Your task to perform on an android device: uninstall "AliExpress" Image 0: 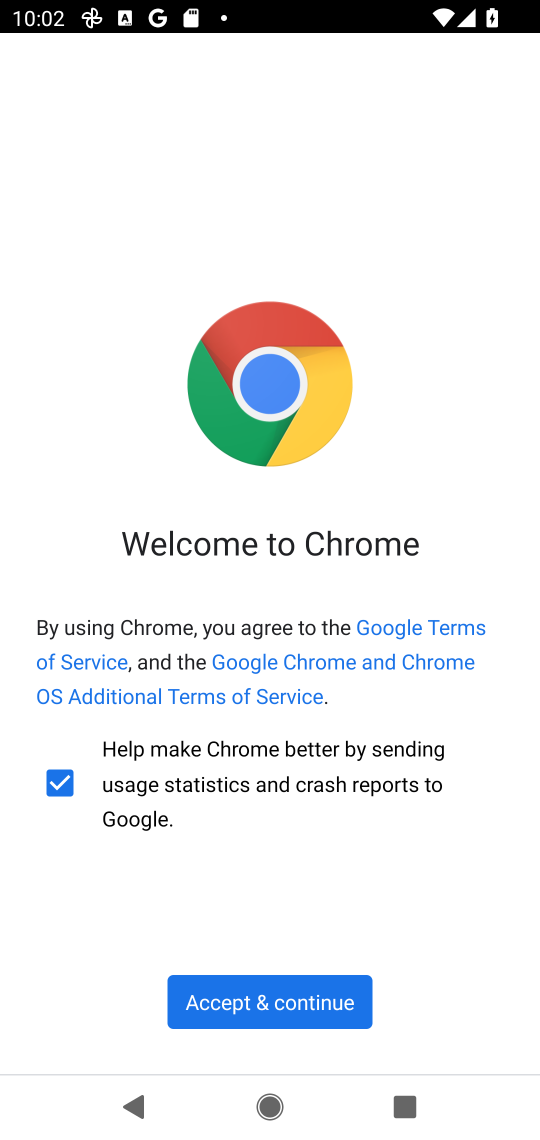
Step 0: press home button
Your task to perform on an android device: uninstall "AliExpress" Image 1: 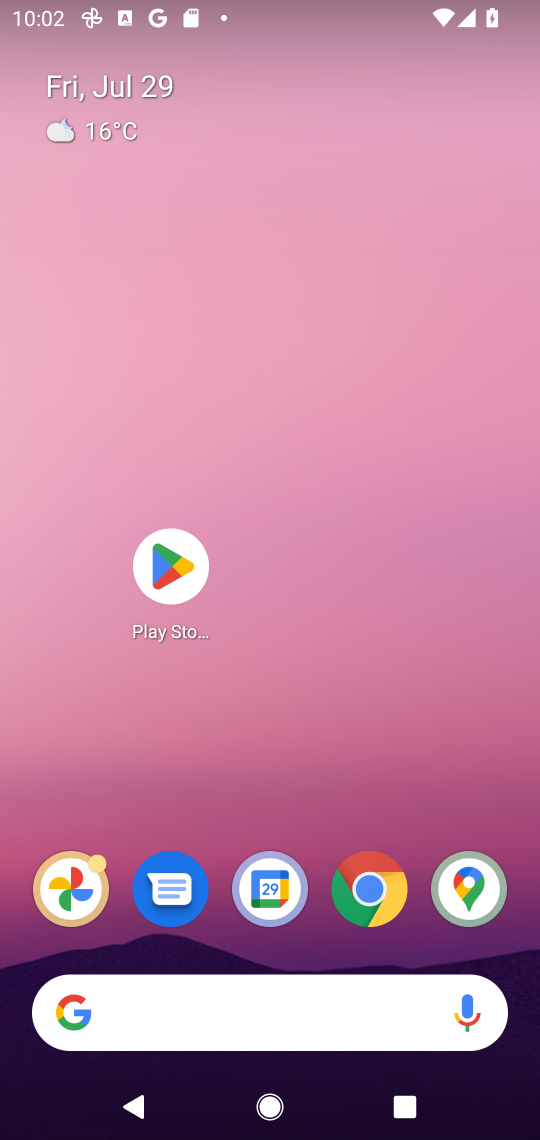
Step 1: click (155, 567)
Your task to perform on an android device: uninstall "AliExpress" Image 2: 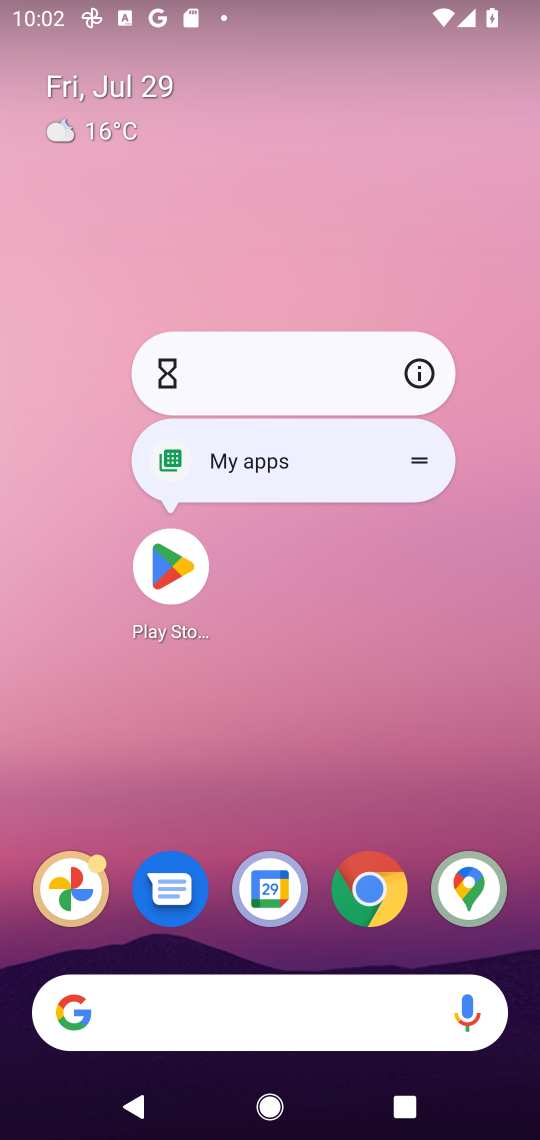
Step 2: click (174, 567)
Your task to perform on an android device: uninstall "AliExpress" Image 3: 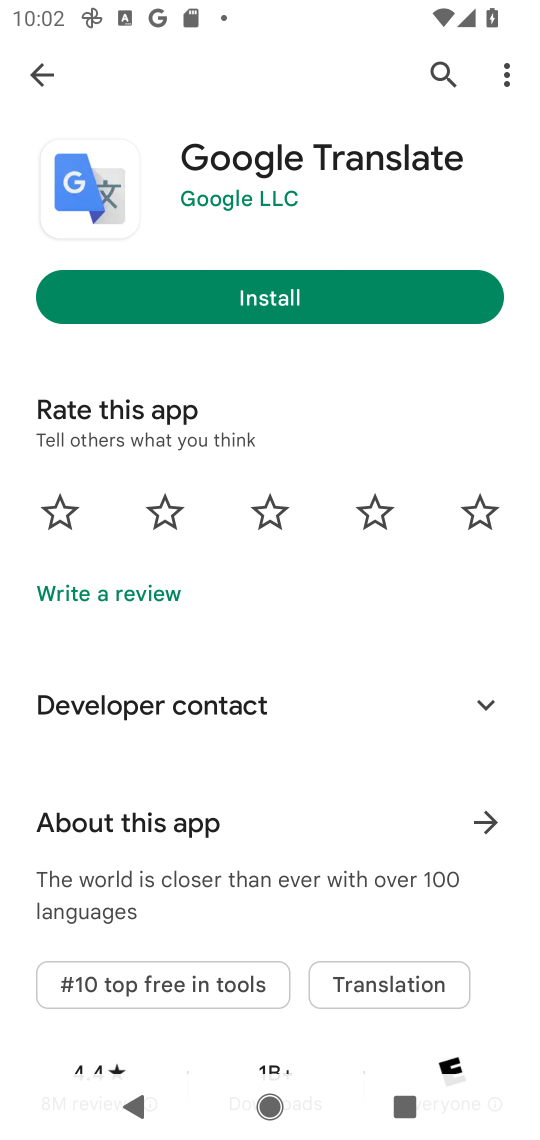
Step 3: click (431, 57)
Your task to perform on an android device: uninstall "AliExpress" Image 4: 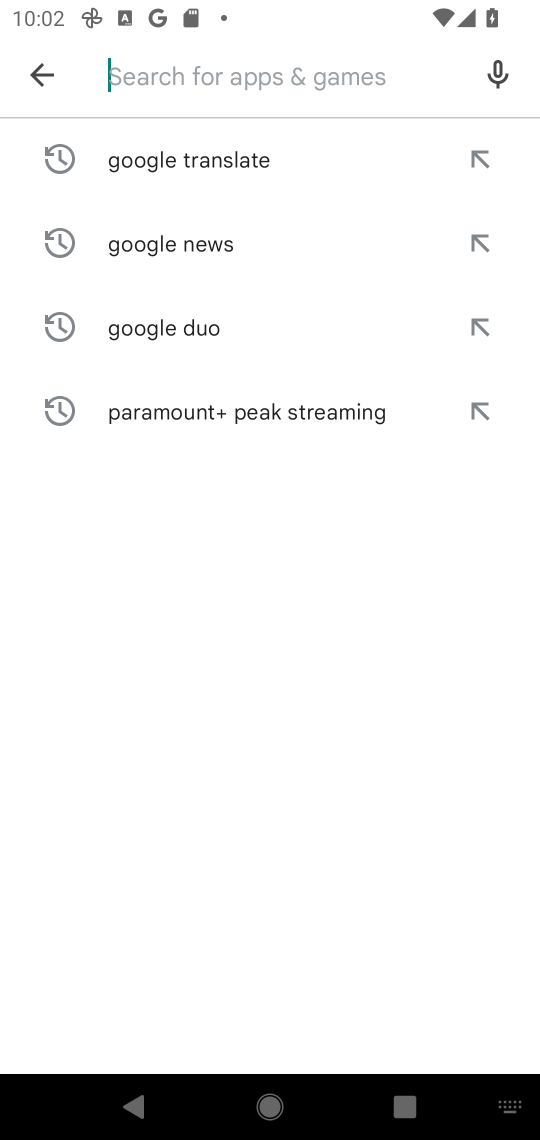
Step 4: type "AliExpress"
Your task to perform on an android device: uninstall "AliExpress" Image 5: 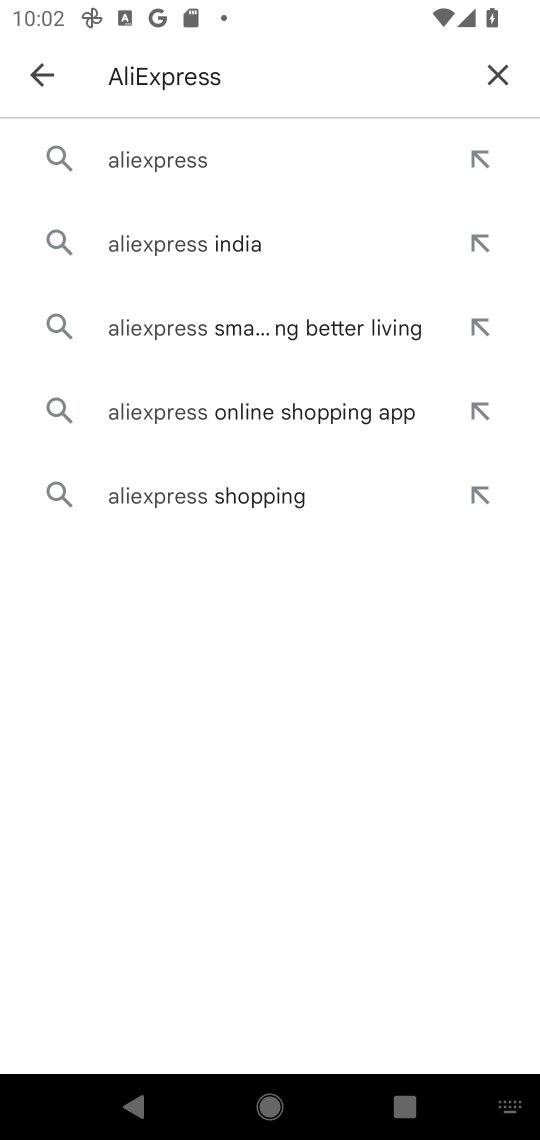
Step 5: click (198, 157)
Your task to perform on an android device: uninstall "AliExpress" Image 6: 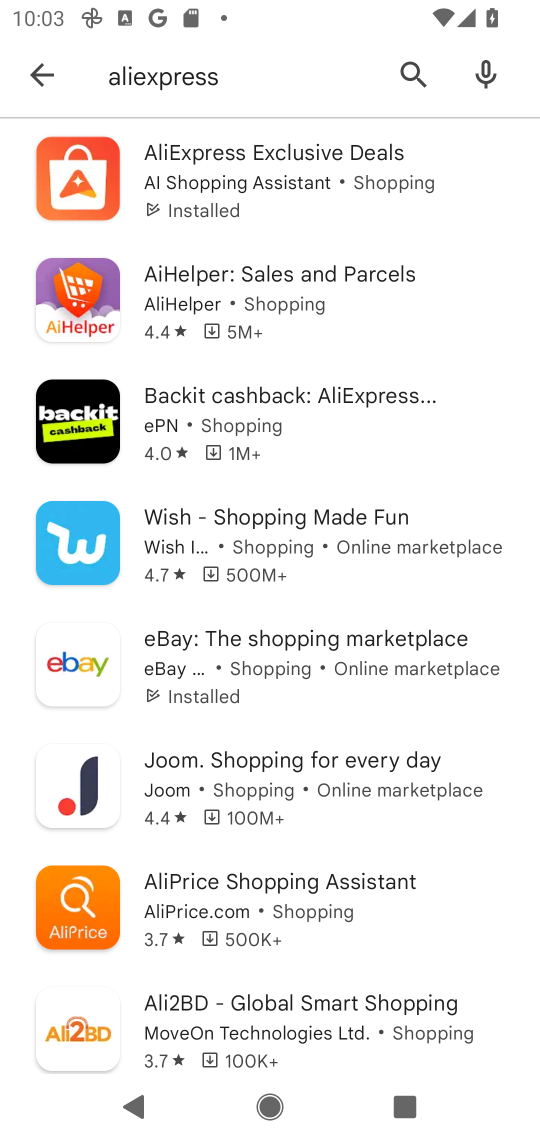
Step 6: click (196, 175)
Your task to perform on an android device: uninstall "AliExpress" Image 7: 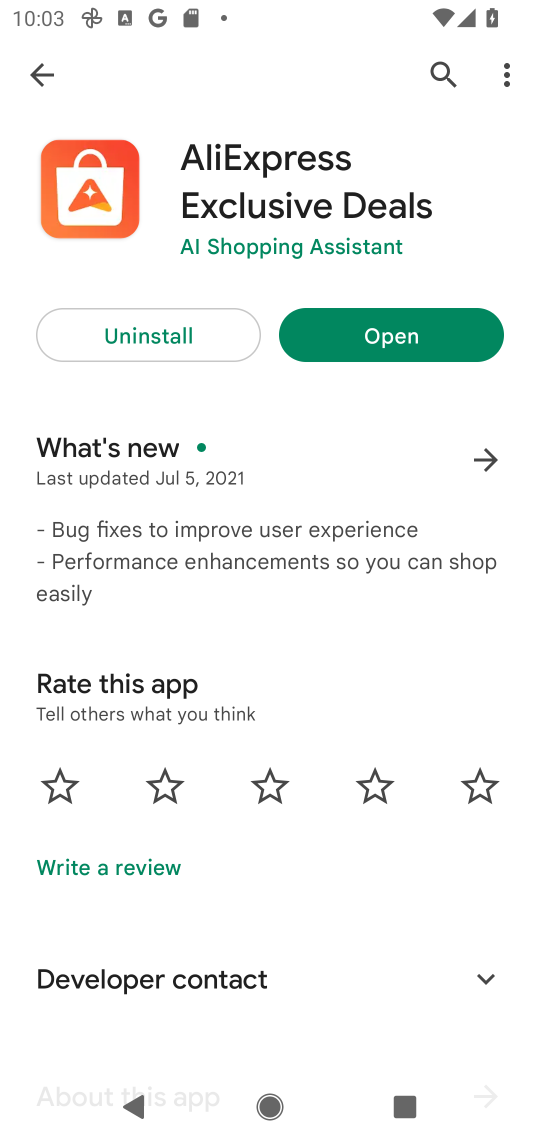
Step 7: click (146, 337)
Your task to perform on an android device: uninstall "AliExpress" Image 8: 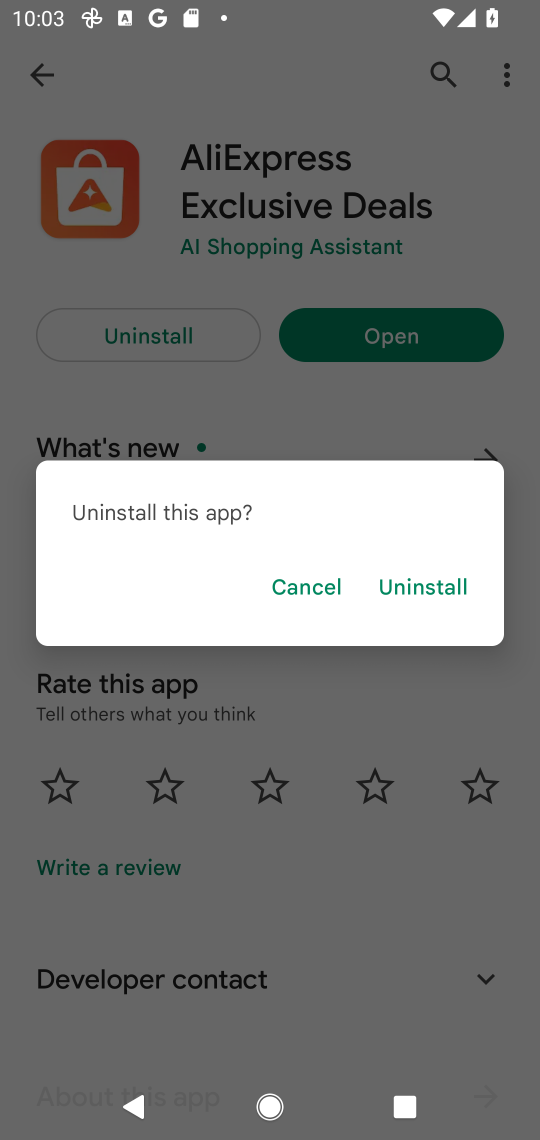
Step 8: click (436, 585)
Your task to perform on an android device: uninstall "AliExpress" Image 9: 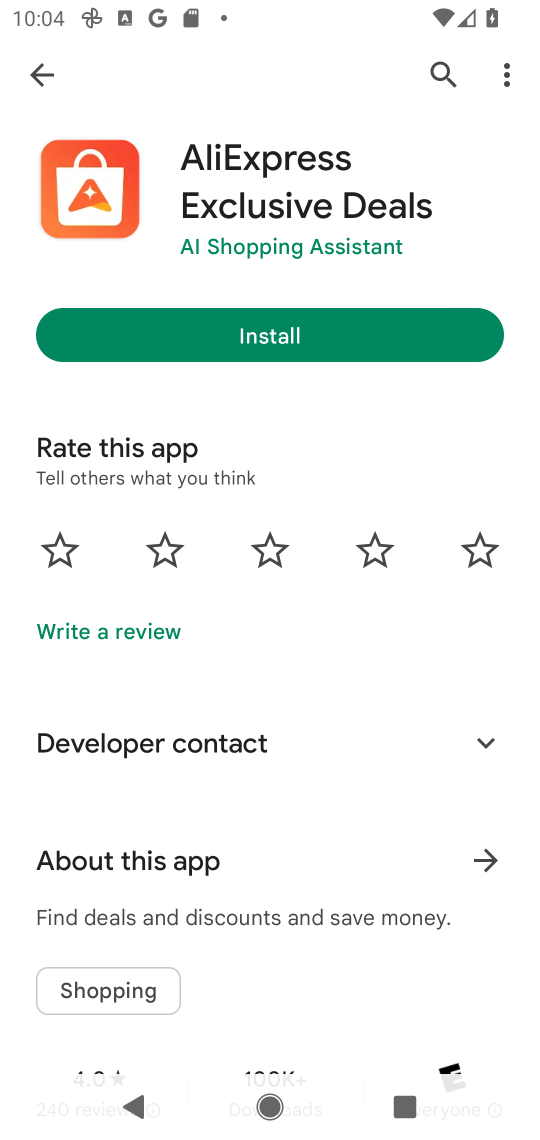
Step 9: task complete